Your task to perform on an android device: turn on location history Image 0: 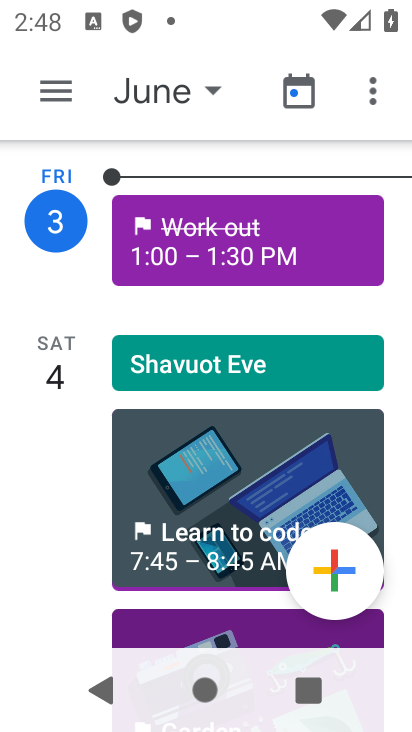
Step 0: press home button
Your task to perform on an android device: turn on location history Image 1: 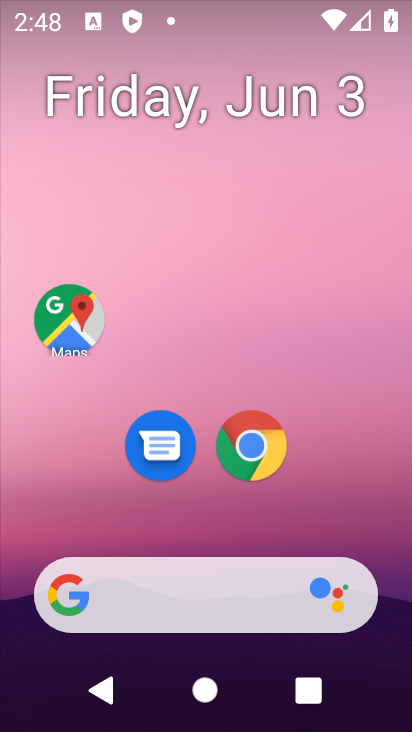
Step 1: drag from (233, 514) to (226, 249)
Your task to perform on an android device: turn on location history Image 2: 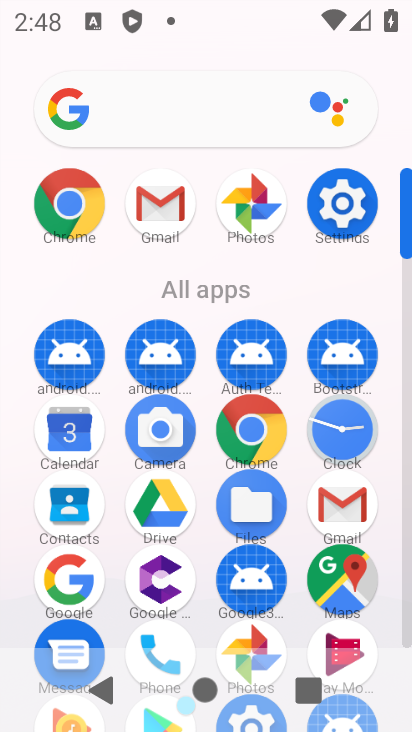
Step 2: click (323, 206)
Your task to perform on an android device: turn on location history Image 3: 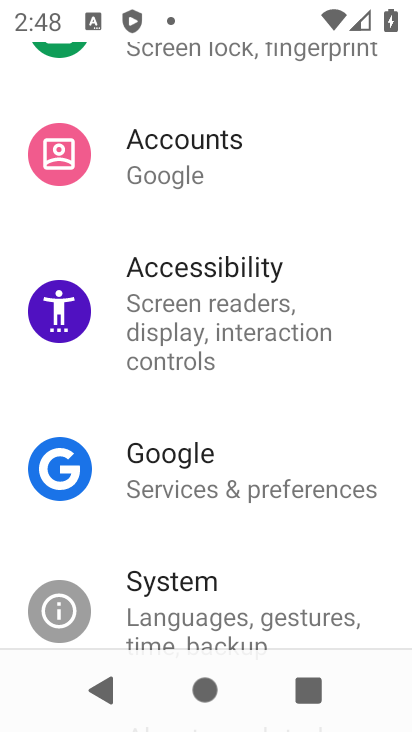
Step 3: drag from (90, 326) to (132, 678)
Your task to perform on an android device: turn on location history Image 4: 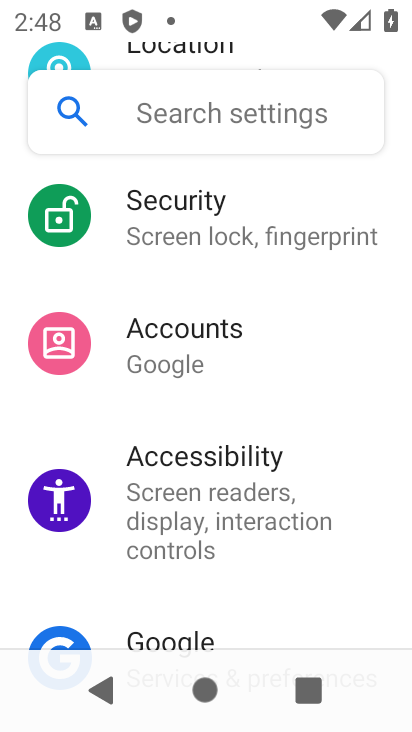
Step 4: drag from (190, 239) to (185, 585)
Your task to perform on an android device: turn on location history Image 5: 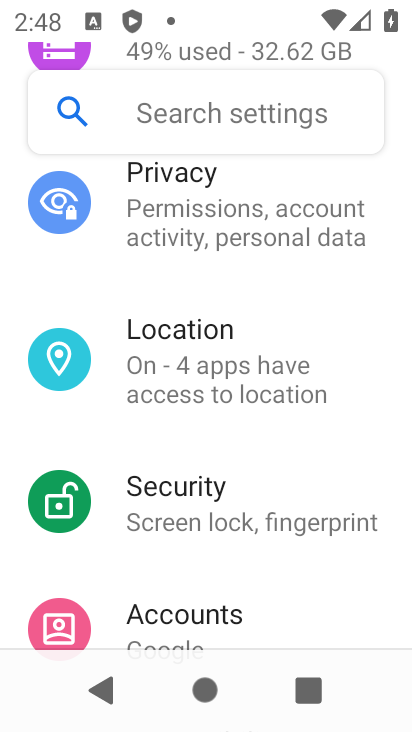
Step 5: click (213, 377)
Your task to perform on an android device: turn on location history Image 6: 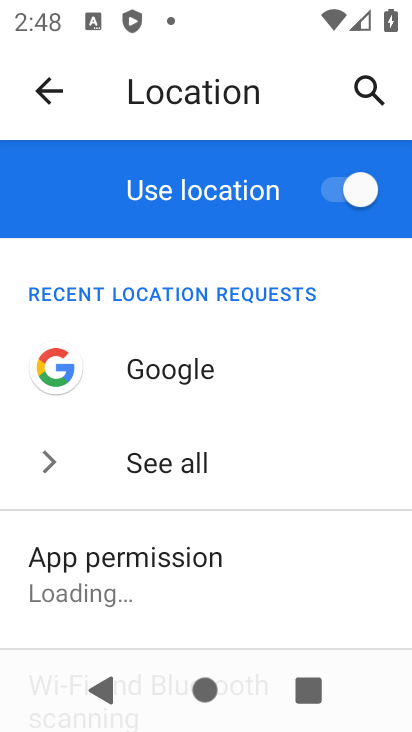
Step 6: drag from (172, 586) to (246, 135)
Your task to perform on an android device: turn on location history Image 7: 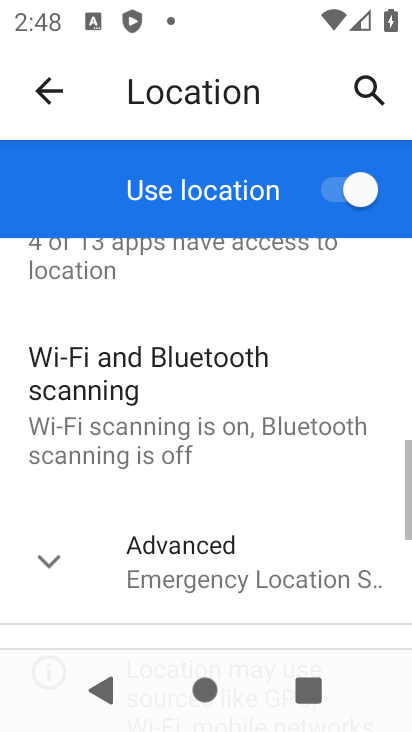
Step 7: click (131, 597)
Your task to perform on an android device: turn on location history Image 8: 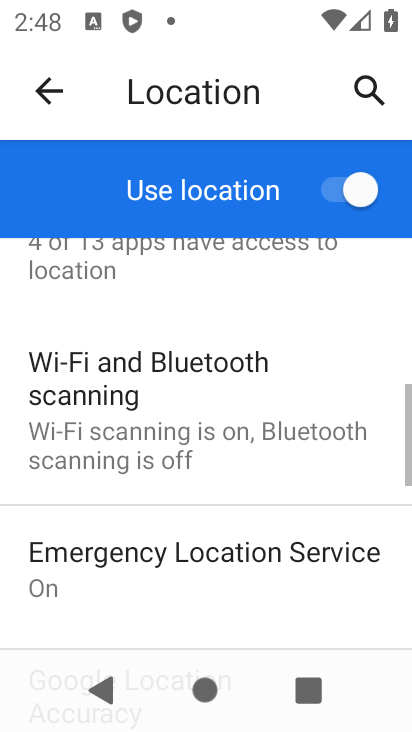
Step 8: drag from (131, 597) to (243, 112)
Your task to perform on an android device: turn on location history Image 9: 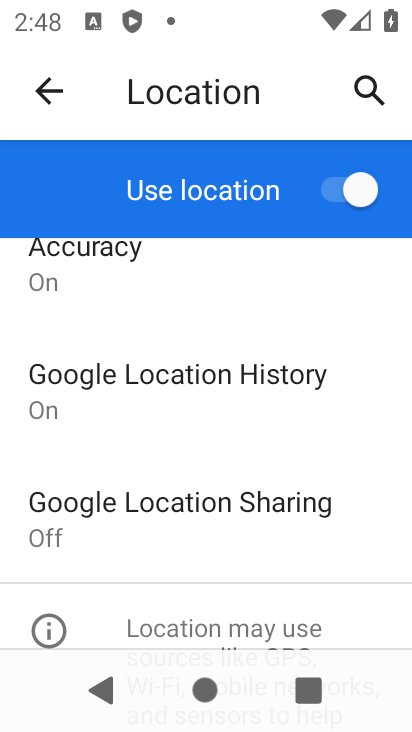
Step 9: click (113, 423)
Your task to perform on an android device: turn on location history Image 10: 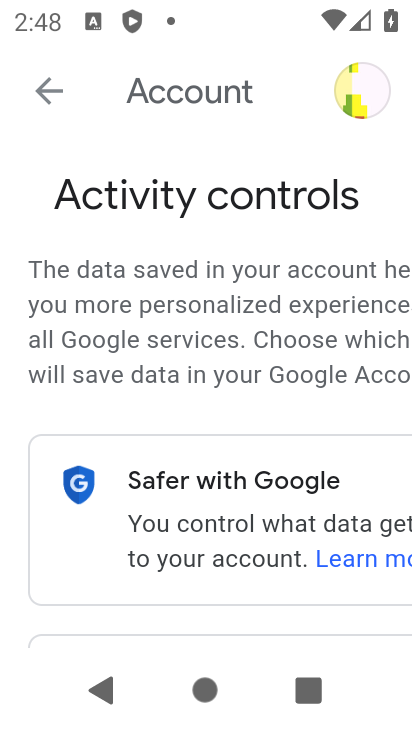
Step 10: task complete